Your task to perform on an android device: find which apps use the phone's location Image 0: 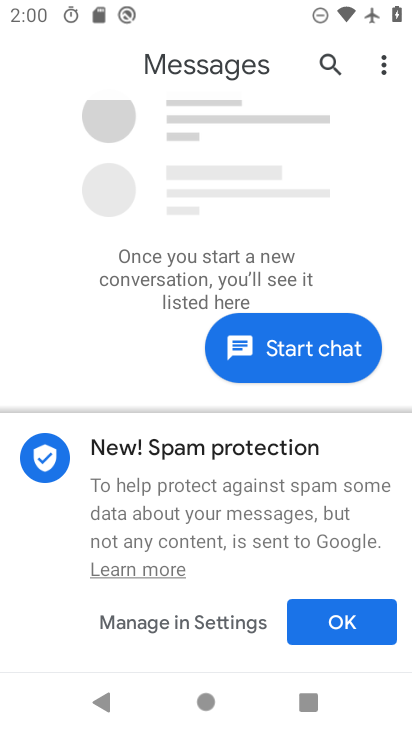
Step 0: press home button
Your task to perform on an android device: find which apps use the phone's location Image 1: 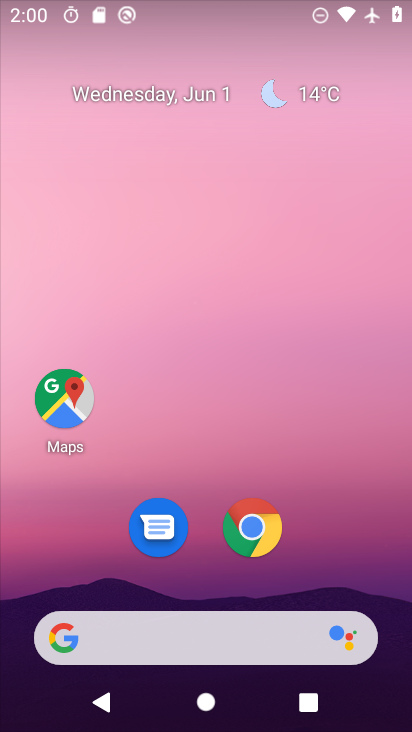
Step 1: drag from (216, 578) to (255, 169)
Your task to perform on an android device: find which apps use the phone's location Image 2: 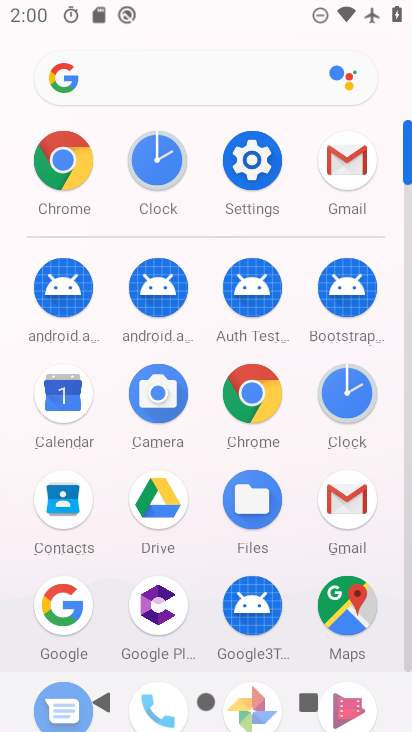
Step 2: drag from (188, 559) to (212, 224)
Your task to perform on an android device: find which apps use the phone's location Image 3: 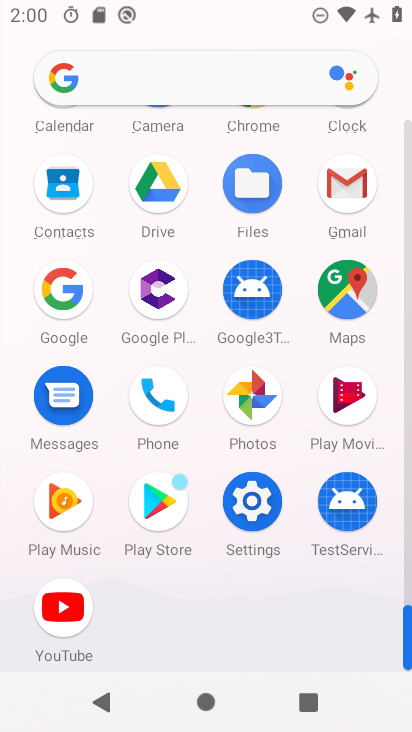
Step 3: click (244, 522)
Your task to perform on an android device: find which apps use the phone's location Image 4: 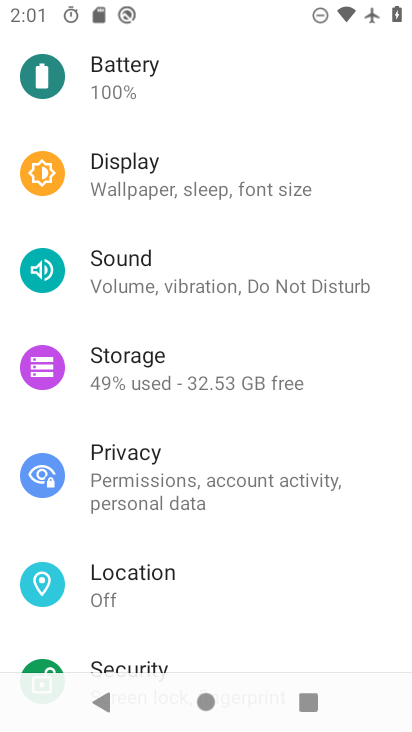
Step 4: click (163, 568)
Your task to perform on an android device: find which apps use the phone's location Image 5: 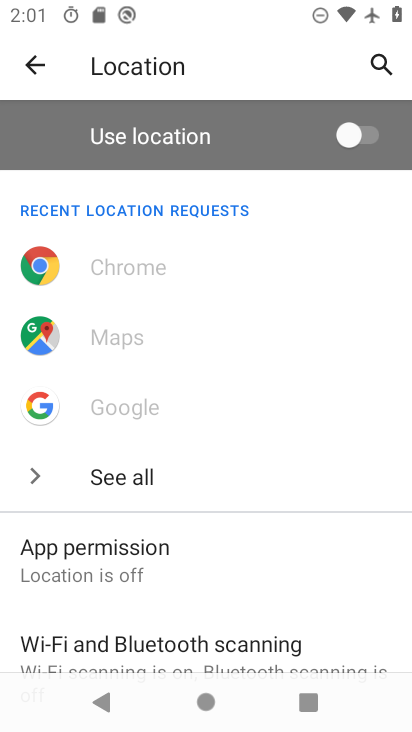
Step 5: click (120, 554)
Your task to perform on an android device: find which apps use the phone's location Image 6: 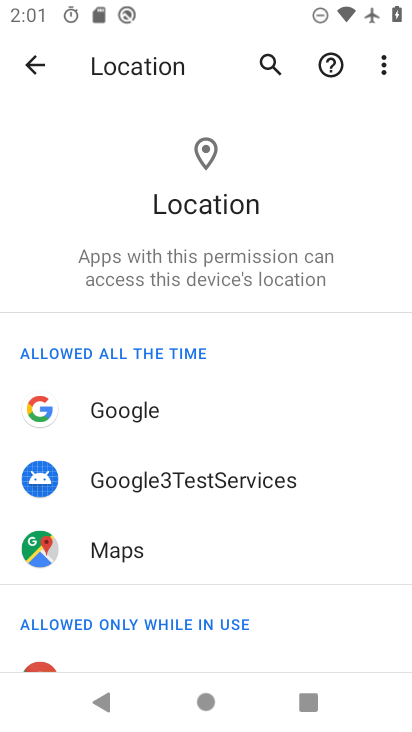
Step 6: task complete